Your task to perform on an android device: Open Youtube and go to the subscriptions tab Image 0: 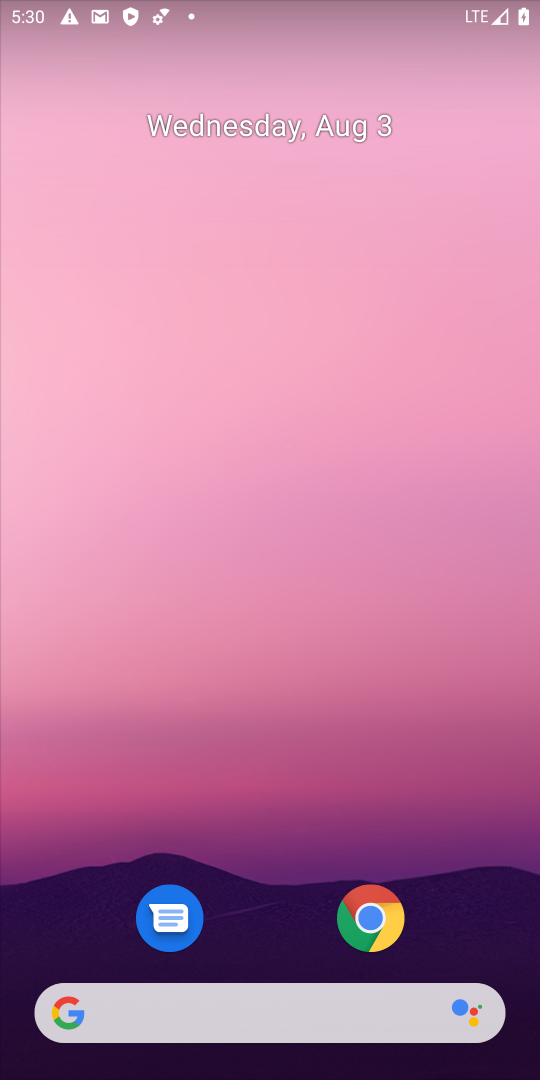
Step 0: drag from (241, 994) to (261, 174)
Your task to perform on an android device: Open Youtube and go to the subscriptions tab Image 1: 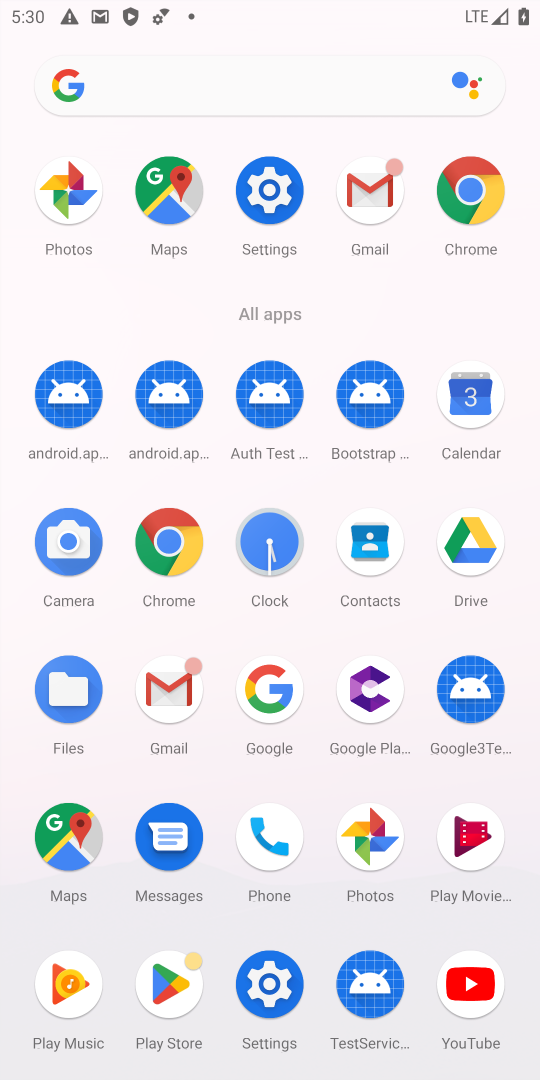
Step 1: click (480, 1001)
Your task to perform on an android device: Open Youtube and go to the subscriptions tab Image 2: 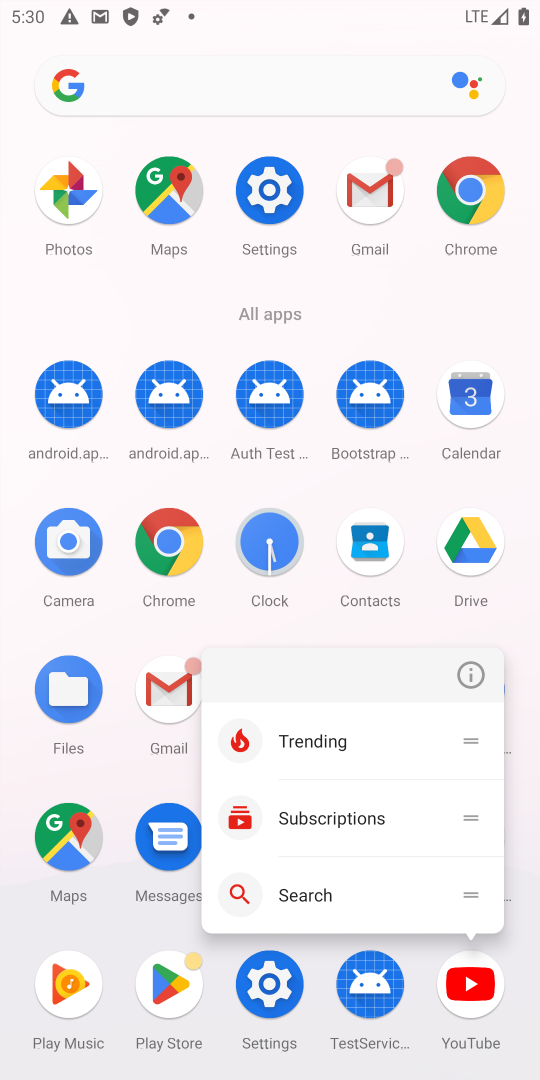
Step 2: click (476, 972)
Your task to perform on an android device: Open Youtube and go to the subscriptions tab Image 3: 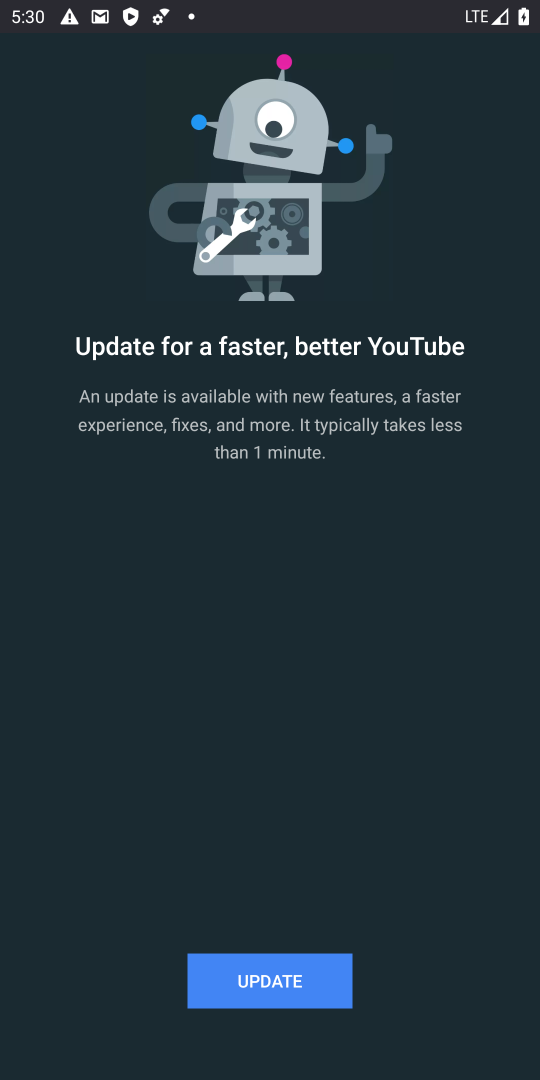
Step 3: click (247, 992)
Your task to perform on an android device: Open Youtube and go to the subscriptions tab Image 4: 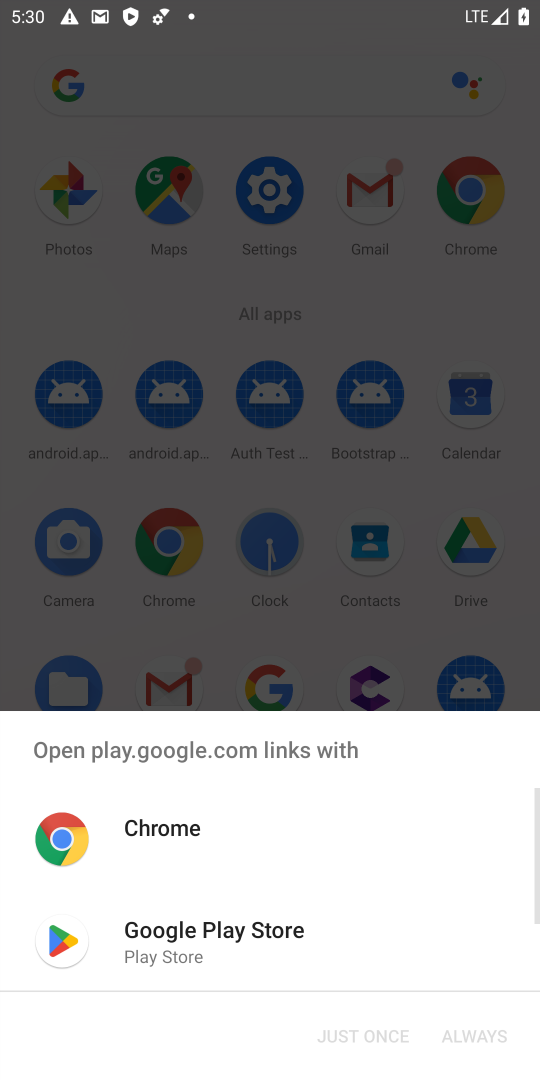
Step 4: click (135, 960)
Your task to perform on an android device: Open Youtube and go to the subscriptions tab Image 5: 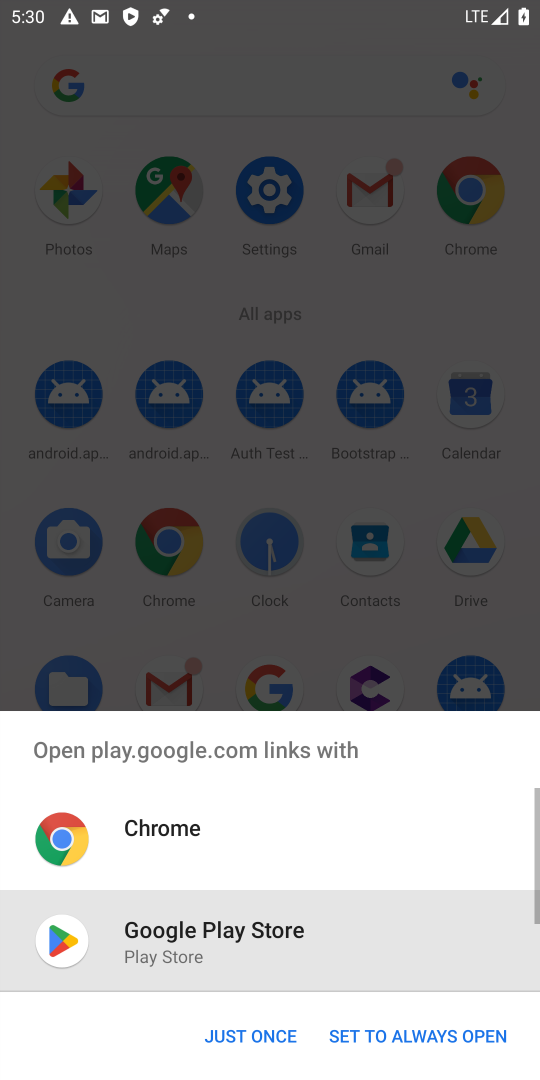
Step 5: click (193, 1052)
Your task to perform on an android device: Open Youtube and go to the subscriptions tab Image 6: 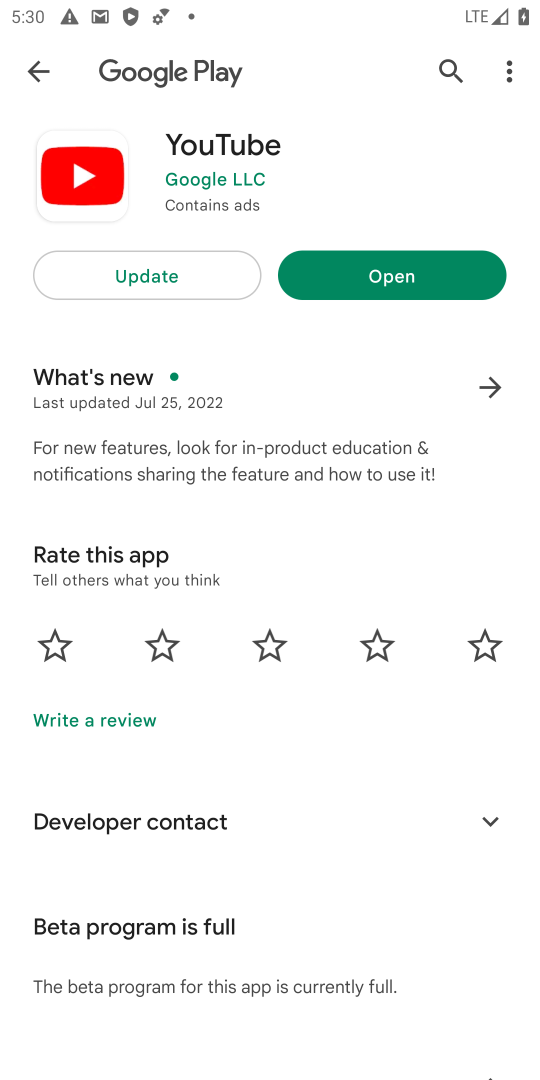
Step 6: click (141, 266)
Your task to perform on an android device: Open Youtube and go to the subscriptions tab Image 7: 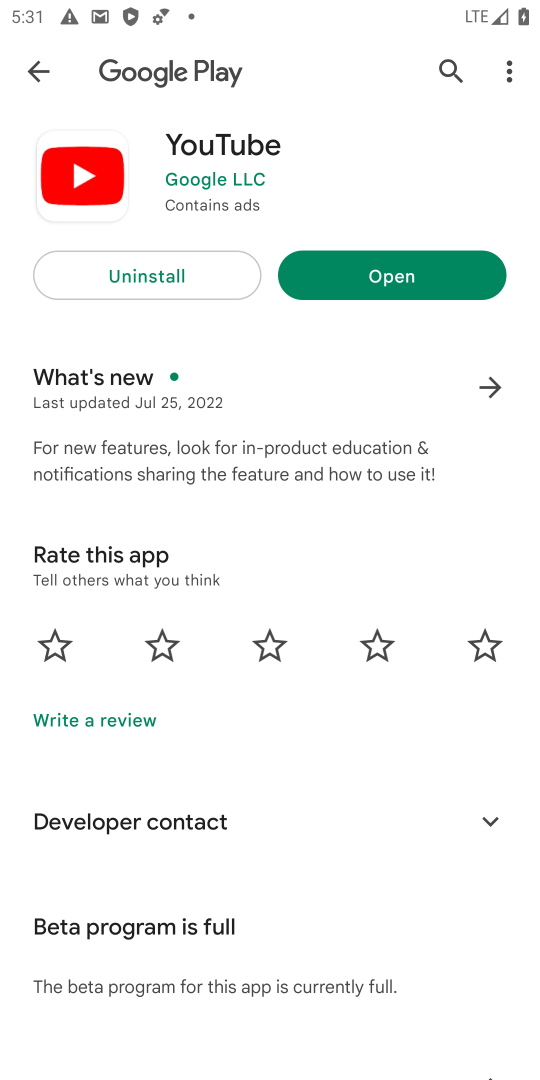
Step 7: click (340, 275)
Your task to perform on an android device: Open Youtube and go to the subscriptions tab Image 8: 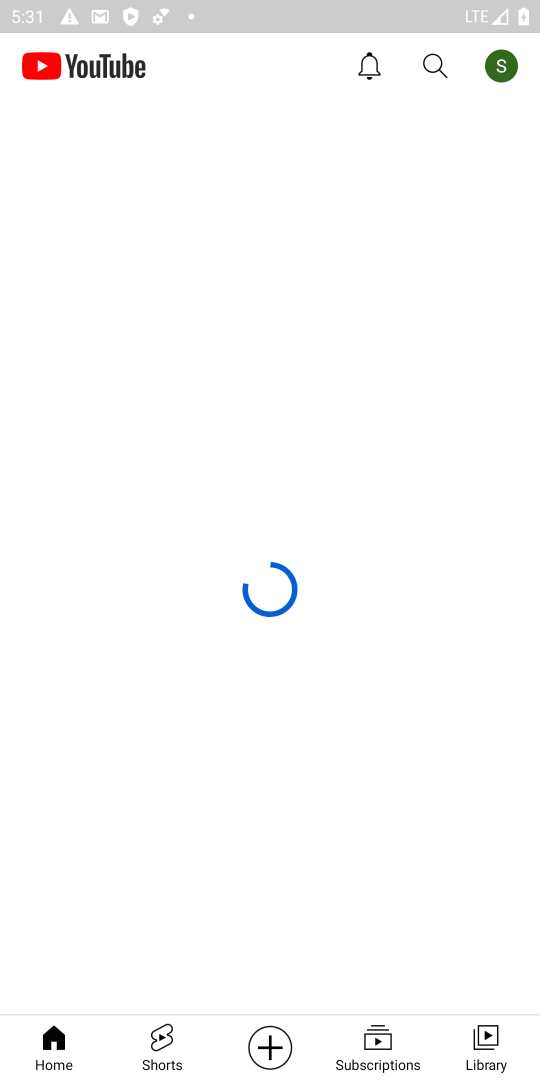
Step 8: click (367, 1051)
Your task to perform on an android device: Open Youtube and go to the subscriptions tab Image 9: 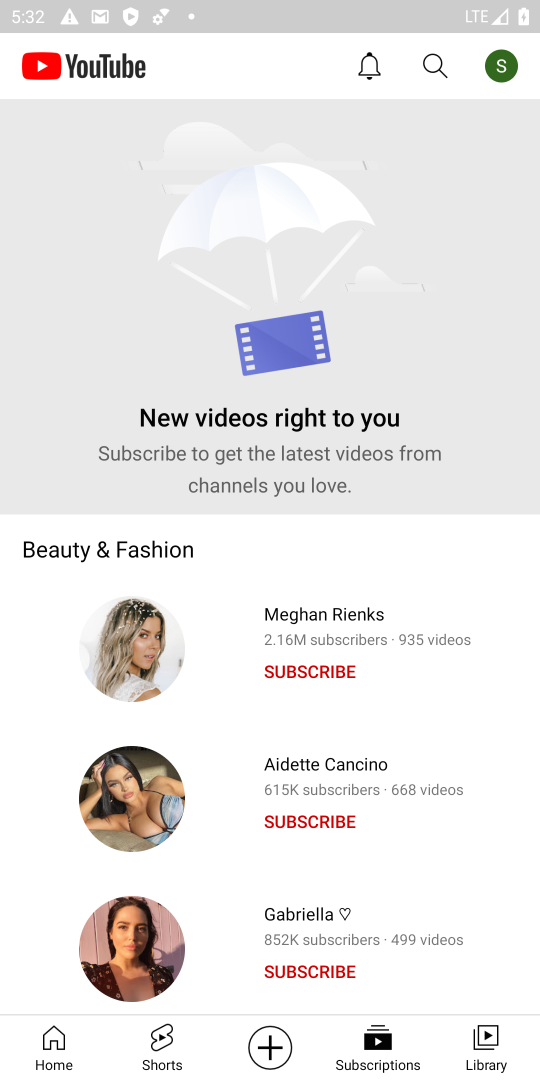
Step 9: task complete